Your task to perform on an android device: Go to Maps Image 0: 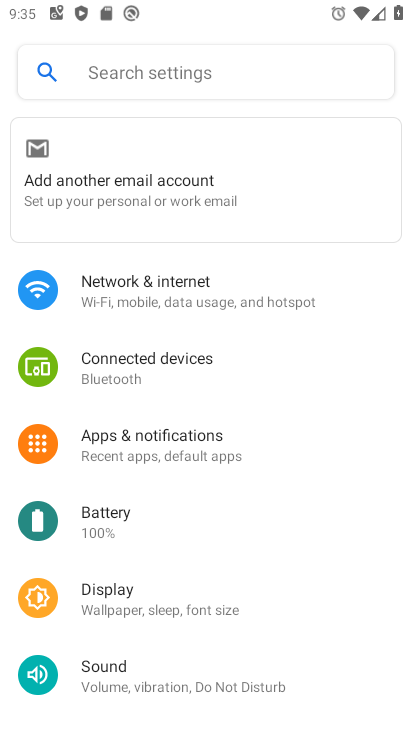
Step 0: press home button
Your task to perform on an android device: Go to Maps Image 1: 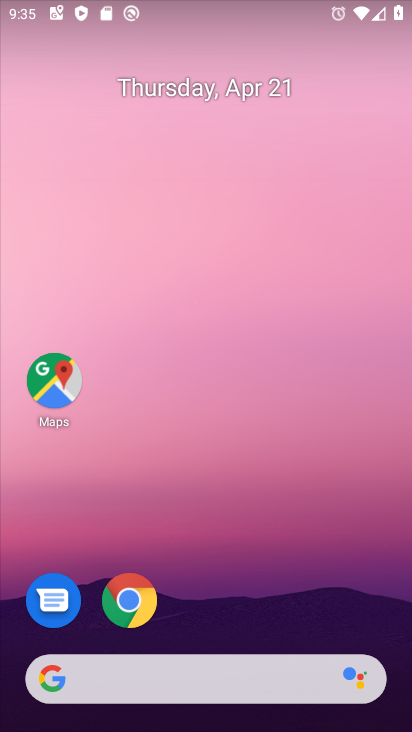
Step 1: click (56, 385)
Your task to perform on an android device: Go to Maps Image 2: 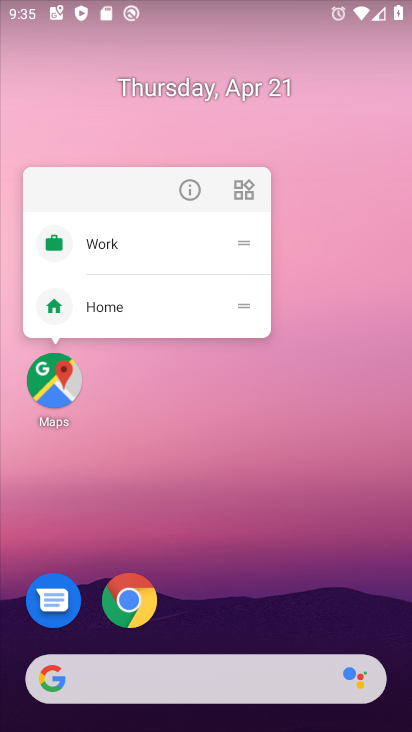
Step 2: click (57, 393)
Your task to perform on an android device: Go to Maps Image 3: 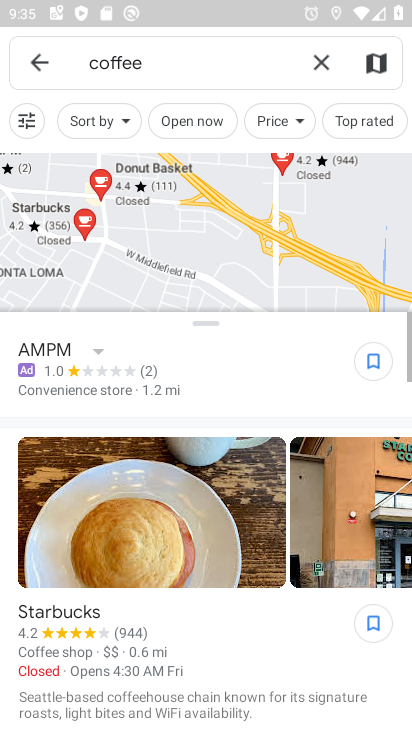
Step 3: task complete